Your task to perform on an android device: Set the phone to "Do not disturb". Image 0: 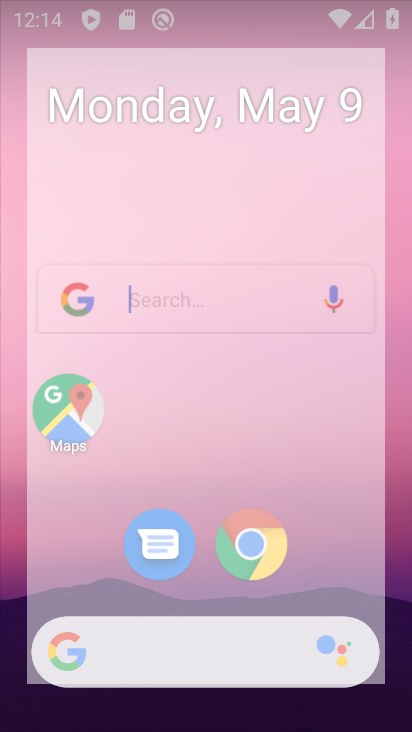
Step 0: drag from (342, 523) to (283, 4)
Your task to perform on an android device: Set the phone to "Do not disturb". Image 1: 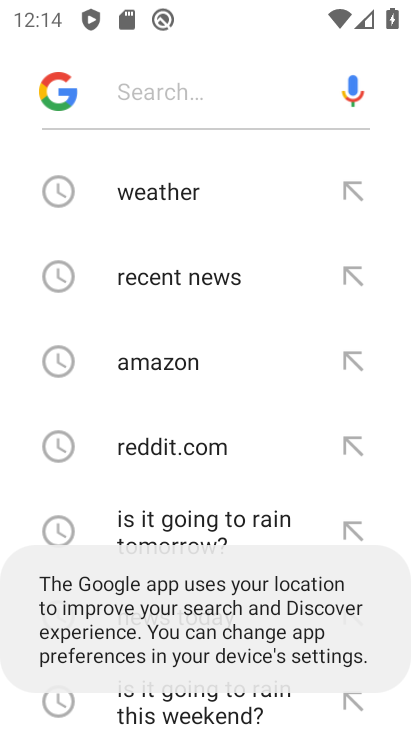
Step 1: press home button
Your task to perform on an android device: Set the phone to "Do not disturb". Image 2: 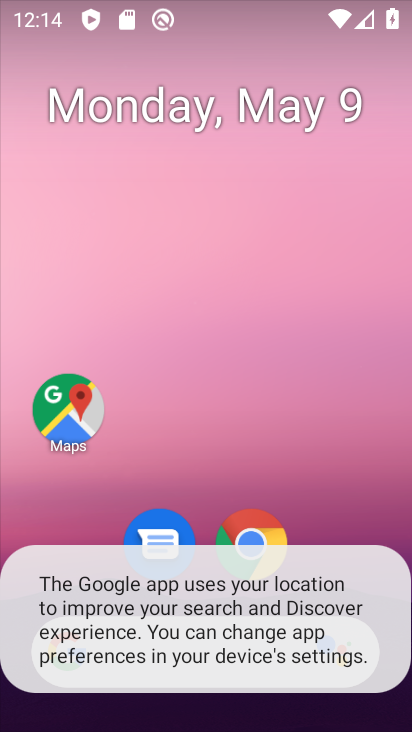
Step 2: drag from (357, 518) to (391, 78)
Your task to perform on an android device: Set the phone to "Do not disturb". Image 3: 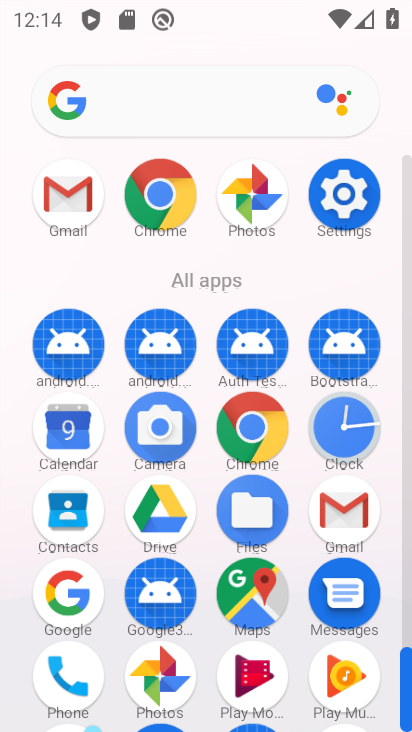
Step 3: click (354, 156)
Your task to perform on an android device: Set the phone to "Do not disturb". Image 4: 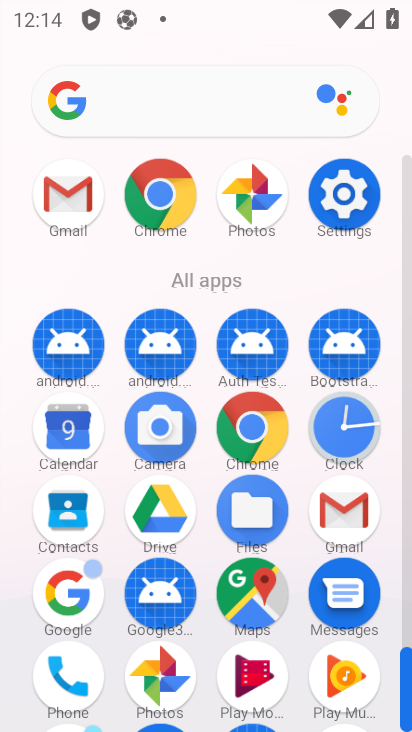
Step 4: click (345, 192)
Your task to perform on an android device: Set the phone to "Do not disturb". Image 5: 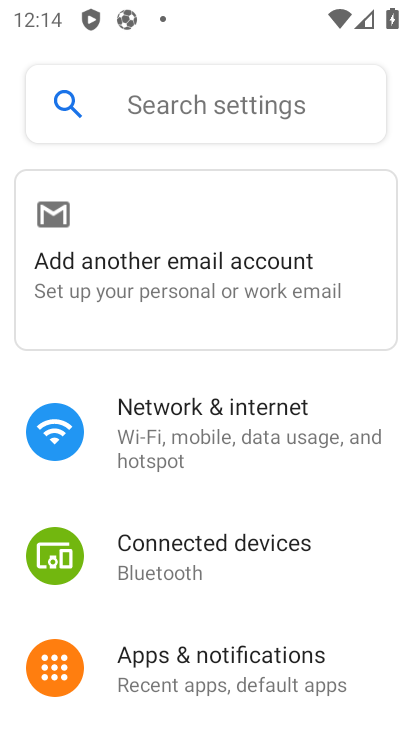
Step 5: drag from (227, 607) to (213, 210)
Your task to perform on an android device: Set the phone to "Do not disturb". Image 6: 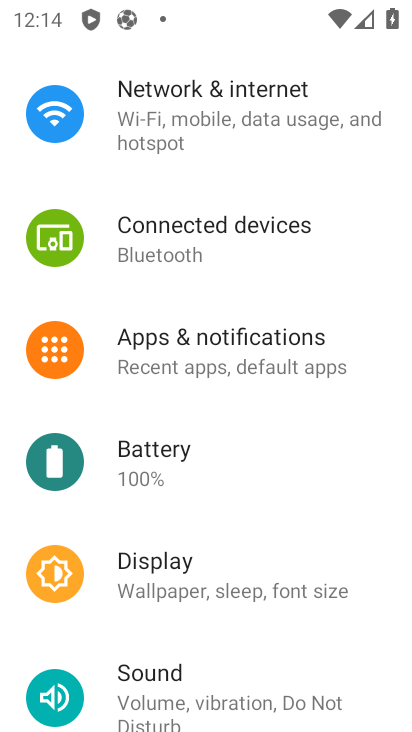
Step 6: drag from (218, 604) to (270, 210)
Your task to perform on an android device: Set the phone to "Do not disturb". Image 7: 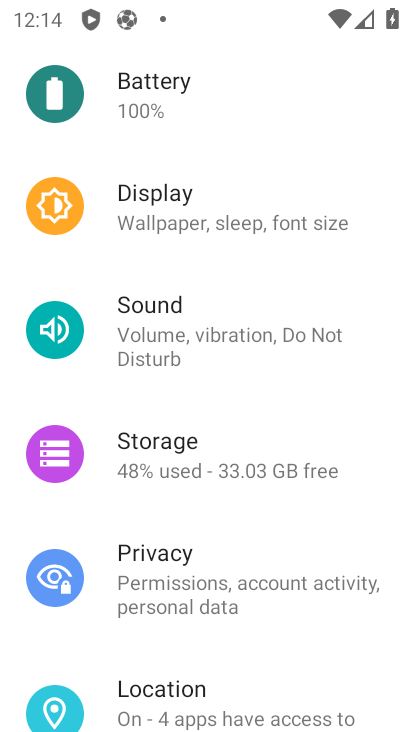
Step 7: click (212, 327)
Your task to perform on an android device: Set the phone to "Do not disturb". Image 8: 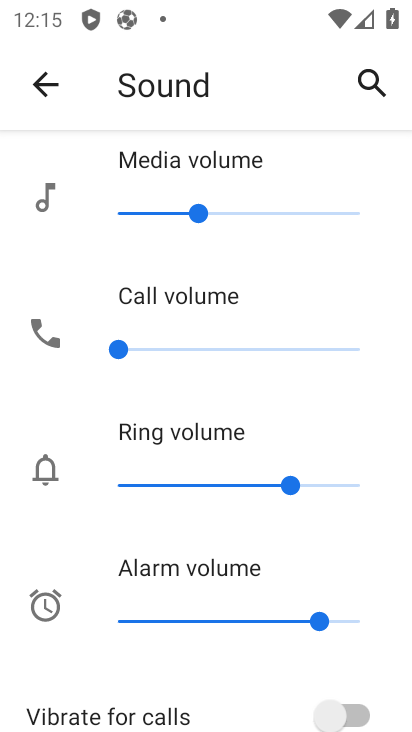
Step 8: drag from (122, 572) to (220, 210)
Your task to perform on an android device: Set the phone to "Do not disturb". Image 9: 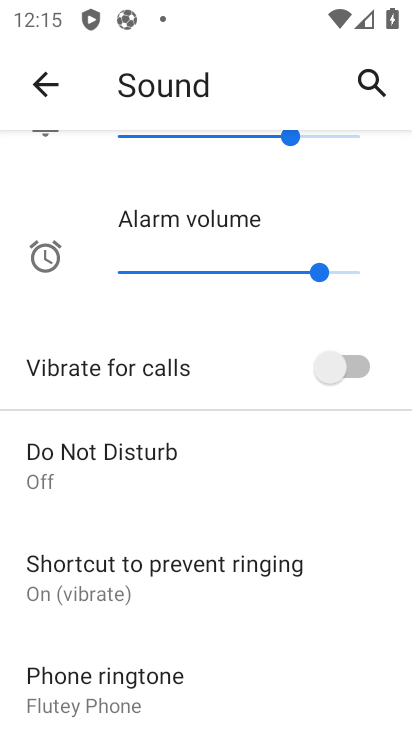
Step 9: click (133, 482)
Your task to perform on an android device: Set the phone to "Do not disturb". Image 10: 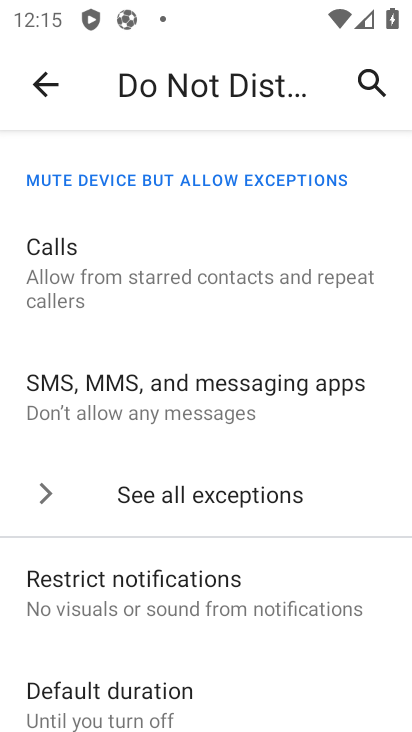
Step 10: drag from (201, 649) to (292, 234)
Your task to perform on an android device: Set the phone to "Do not disturb". Image 11: 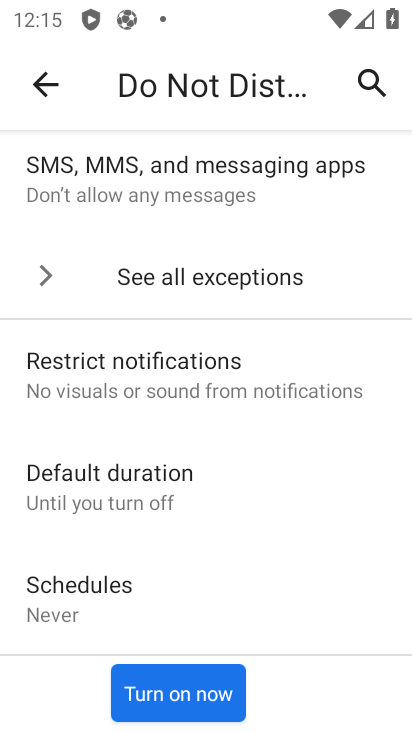
Step 11: drag from (211, 624) to (217, 292)
Your task to perform on an android device: Set the phone to "Do not disturb". Image 12: 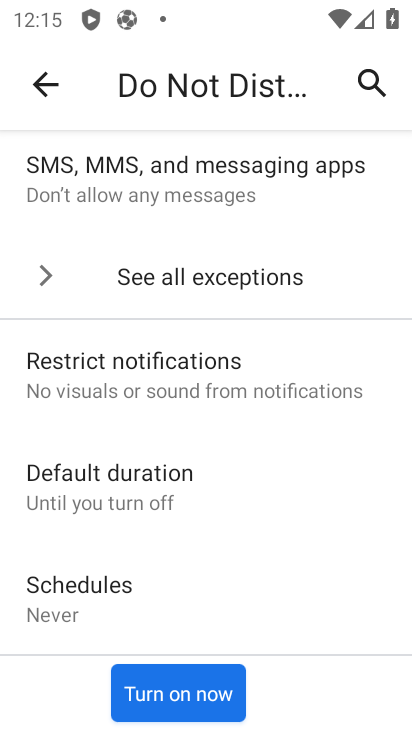
Step 12: click (150, 690)
Your task to perform on an android device: Set the phone to "Do not disturb". Image 13: 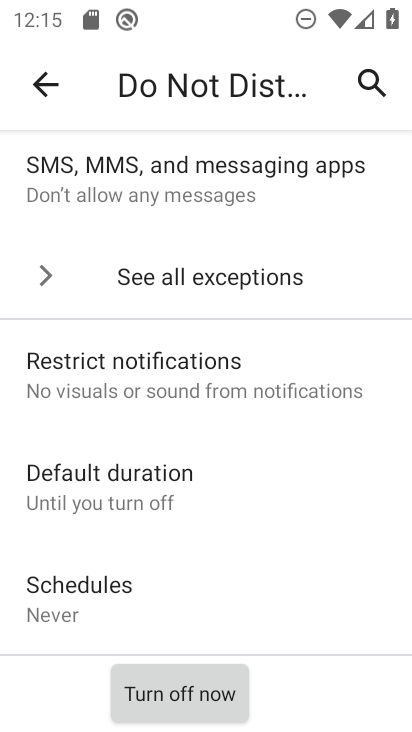
Step 13: task complete